Your task to perform on an android device: change the clock style Image 0: 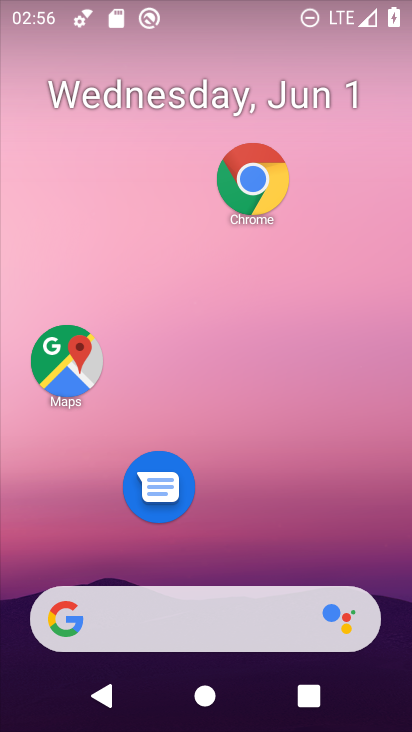
Step 0: drag from (230, 559) to (223, 268)
Your task to perform on an android device: change the clock style Image 1: 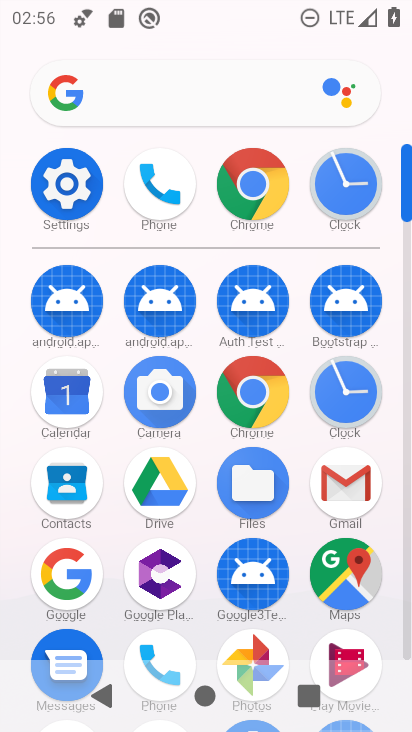
Step 1: click (336, 390)
Your task to perform on an android device: change the clock style Image 2: 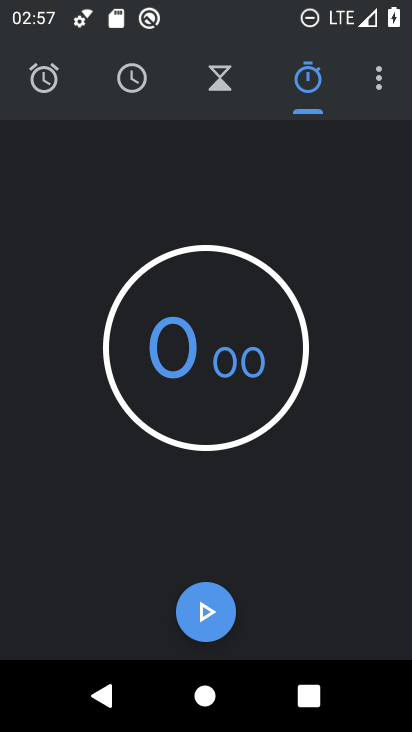
Step 2: click (357, 73)
Your task to perform on an android device: change the clock style Image 3: 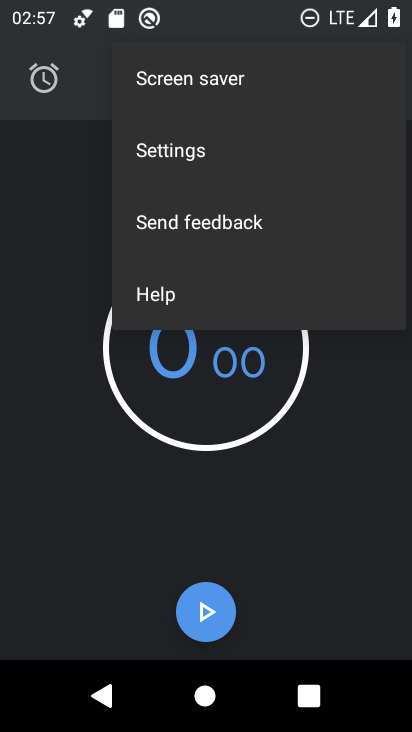
Step 3: click (172, 152)
Your task to perform on an android device: change the clock style Image 4: 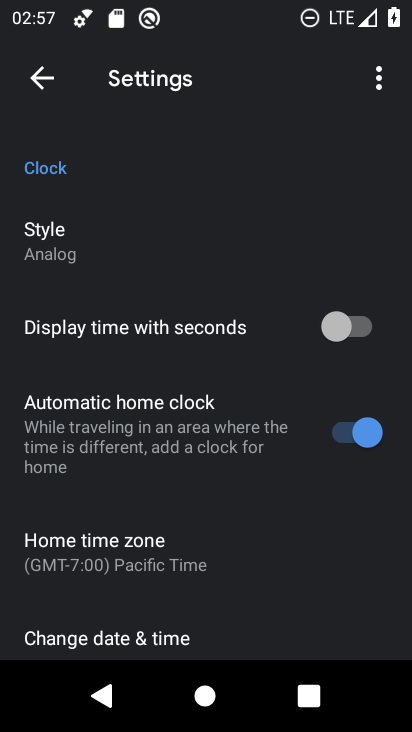
Step 4: click (66, 224)
Your task to perform on an android device: change the clock style Image 5: 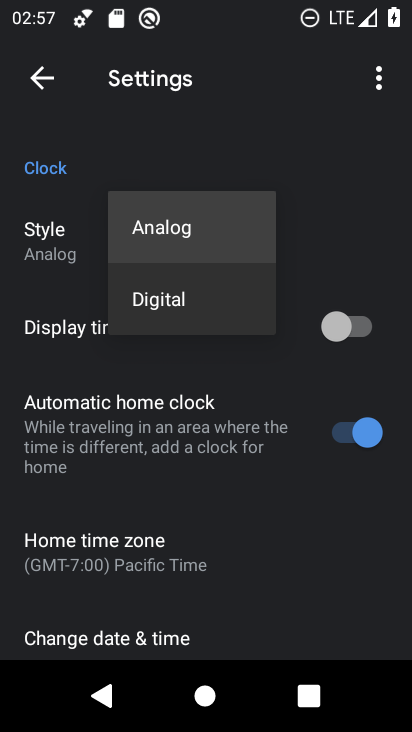
Step 5: click (178, 290)
Your task to perform on an android device: change the clock style Image 6: 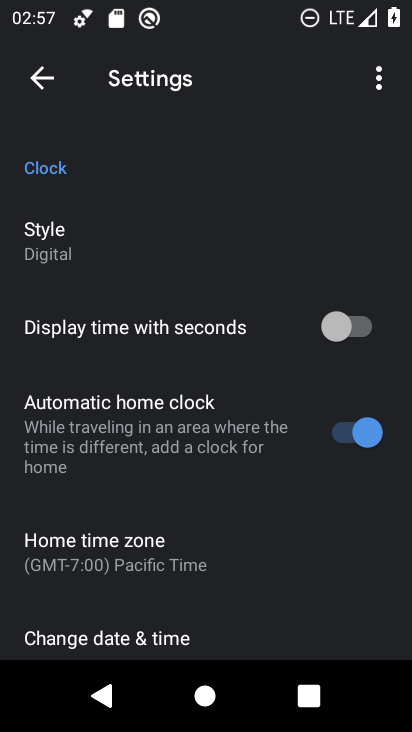
Step 6: task complete